Your task to perform on an android device: find which apps use the phone's location Image 0: 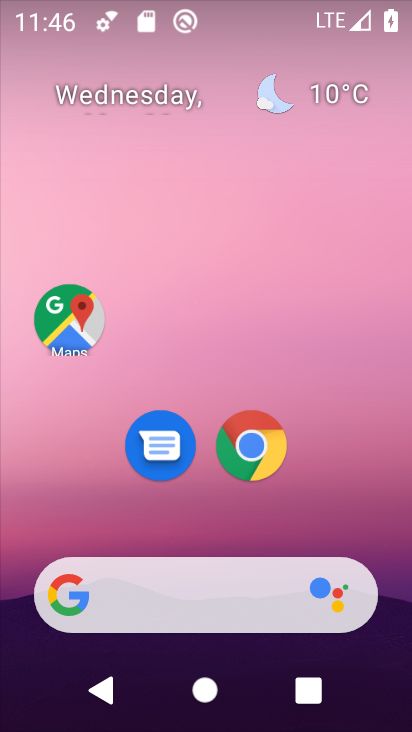
Step 0: drag from (208, 517) to (230, 103)
Your task to perform on an android device: find which apps use the phone's location Image 1: 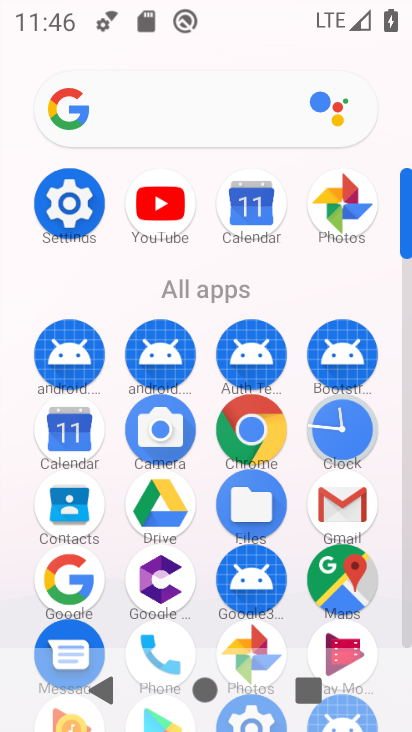
Step 1: drag from (203, 600) to (246, 224)
Your task to perform on an android device: find which apps use the phone's location Image 2: 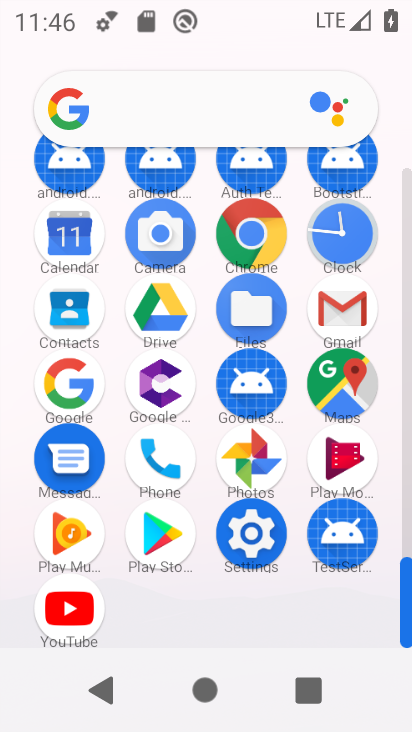
Step 2: click (157, 465)
Your task to perform on an android device: find which apps use the phone's location Image 3: 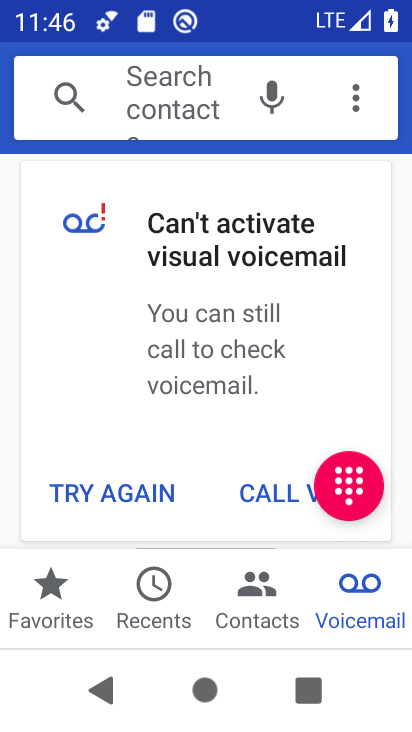
Step 3: press back button
Your task to perform on an android device: find which apps use the phone's location Image 4: 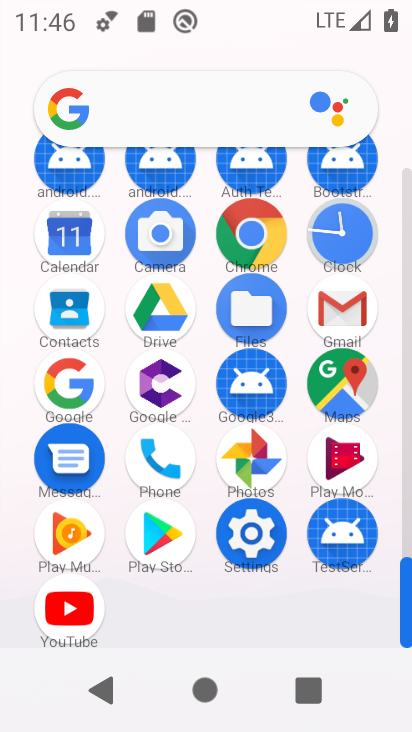
Step 4: click (265, 553)
Your task to perform on an android device: find which apps use the phone's location Image 5: 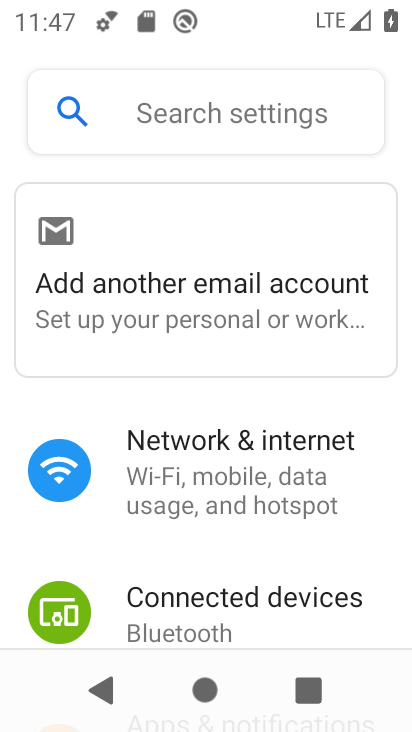
Step 5: drag from (200, 583) to (253, 243)
Your task to perform on an android device: find which apps use the phone's location Image 6: 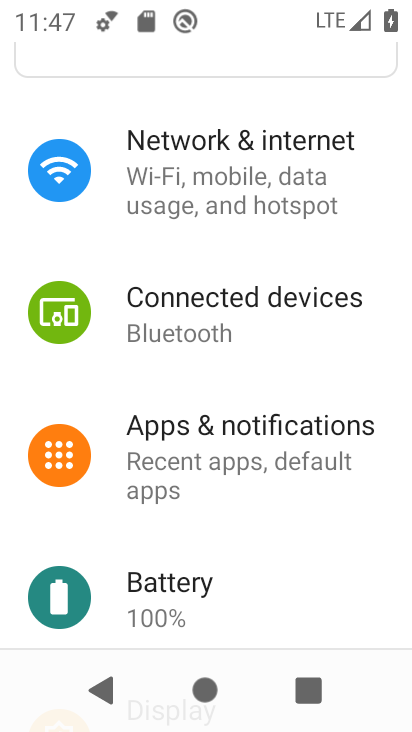
Step 6: drag from (216, 563) to (293, 114)
Your task to perform on an android device: find which apps use the phone's location Image 7: 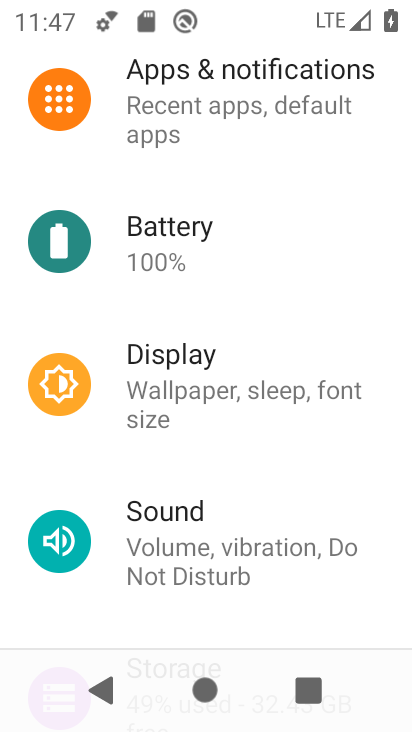
Step 7: drag from (240, 555) to (299, 112)
Your task to perform on an android device: find which apps use the phone's location Image 8: 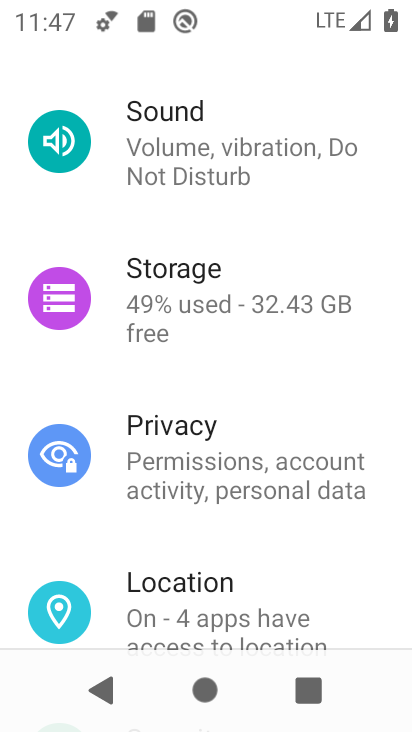
Step 8: click (195, 585)
Your task to perform on an android device: find which apps use the phone's location Image 9: 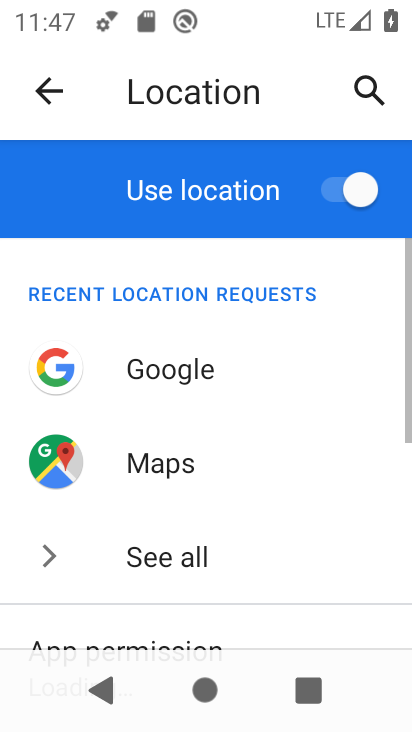
Step 9: drag from (192, 587) to (254, 196)
Your task to perform on an android device: find which apps use the phone's location Image 10: 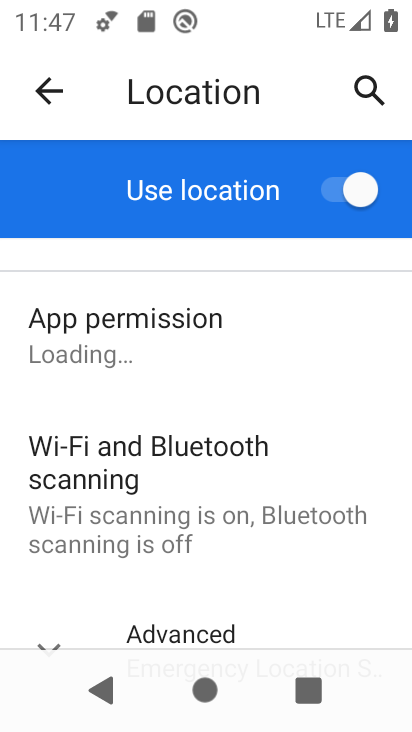
Step 10: click (137, 337)
Your task to perform on an android device: find which apps use the phone's location Image 11: 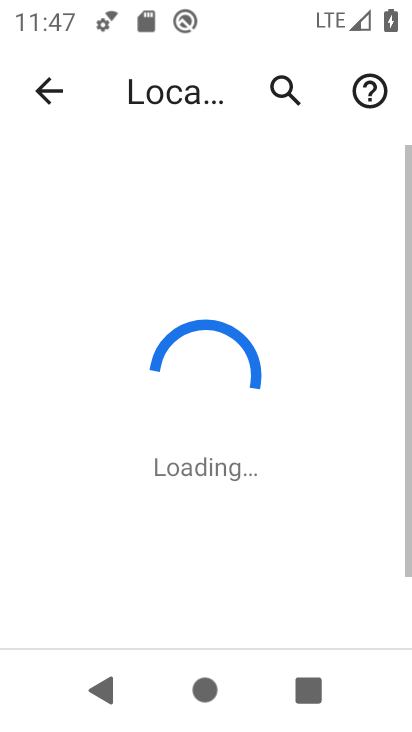
Step 11: task complete